Your task to perform on an android device: delete the emails in spam in the gmail app Image 0: 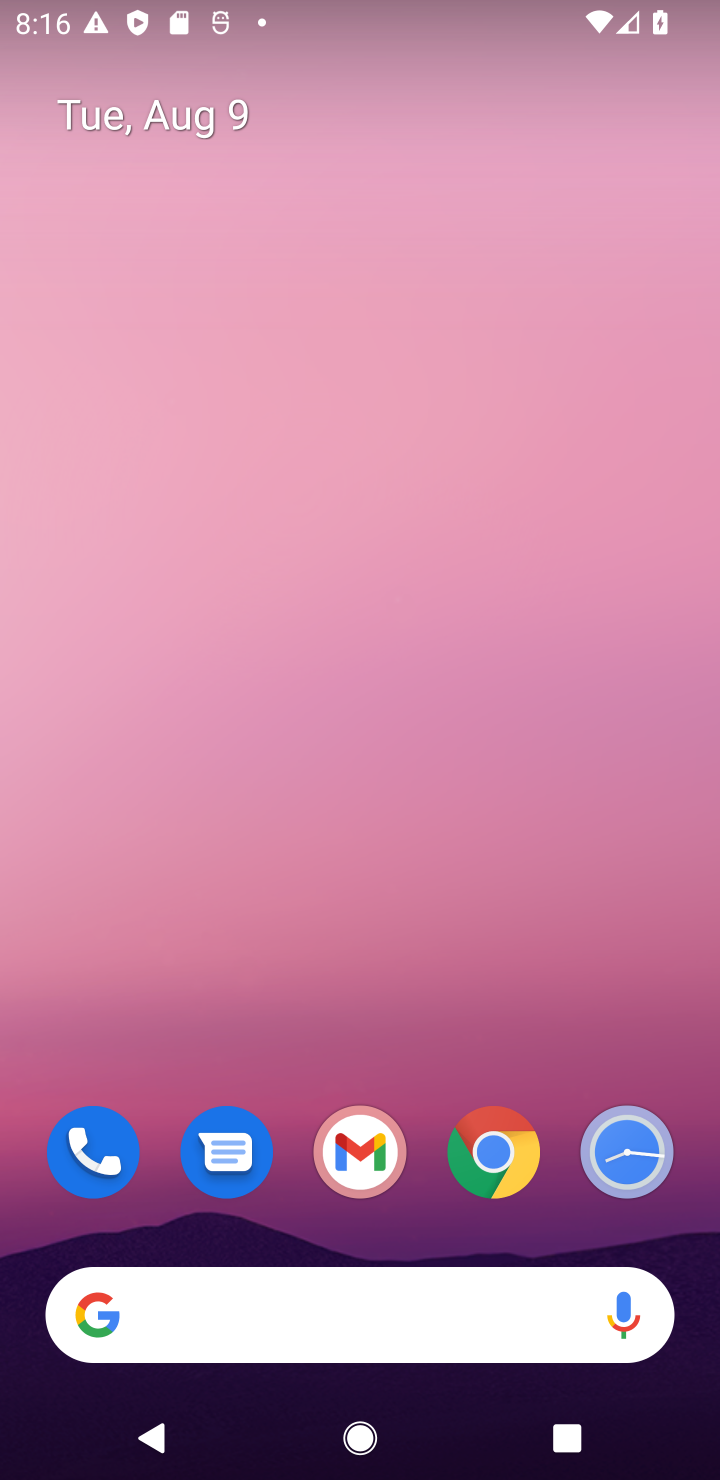
Step 0: click (365, 1124)
Your task to perform on an android device: delete the emails in spam in the gmail app Image 1: 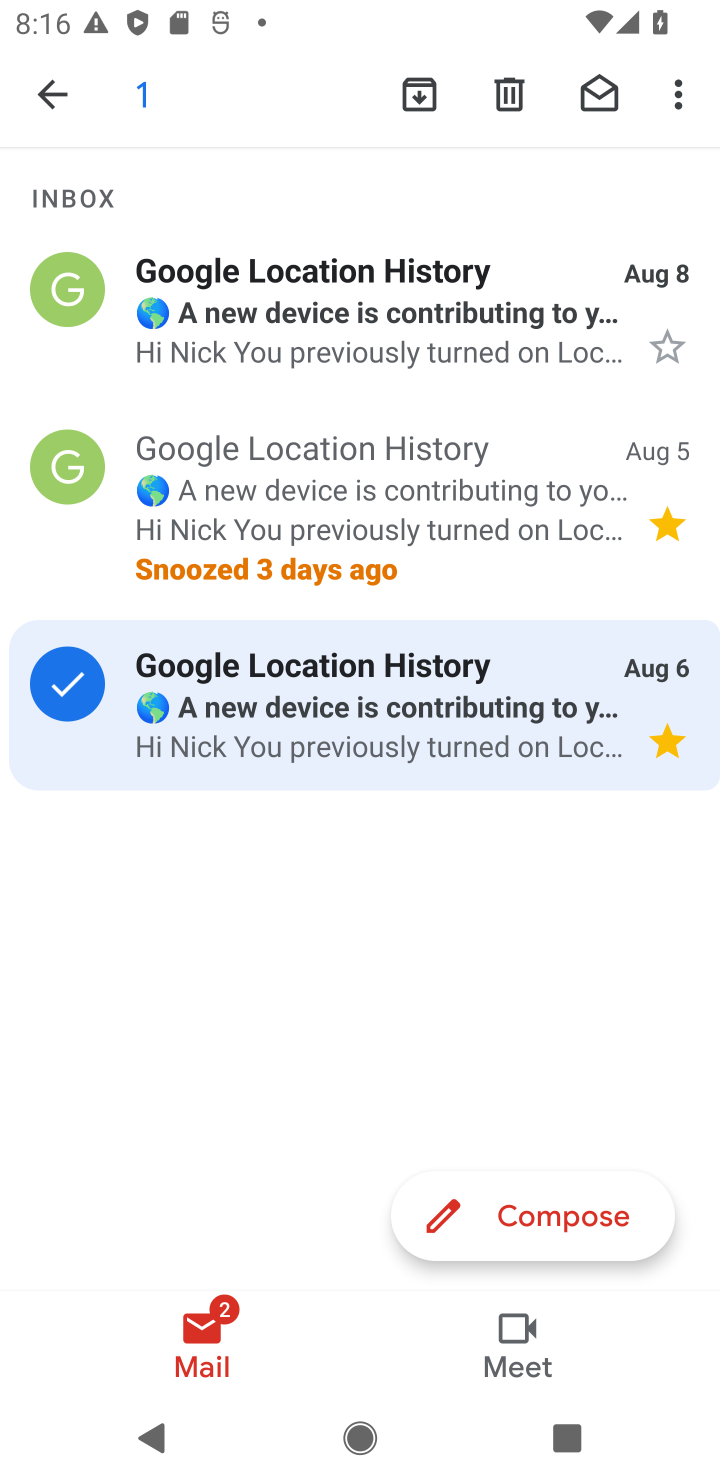
Step 1: click (53, 75)
Your task to perform on an android device: delete the emails in spam in the gmail app Image 2: 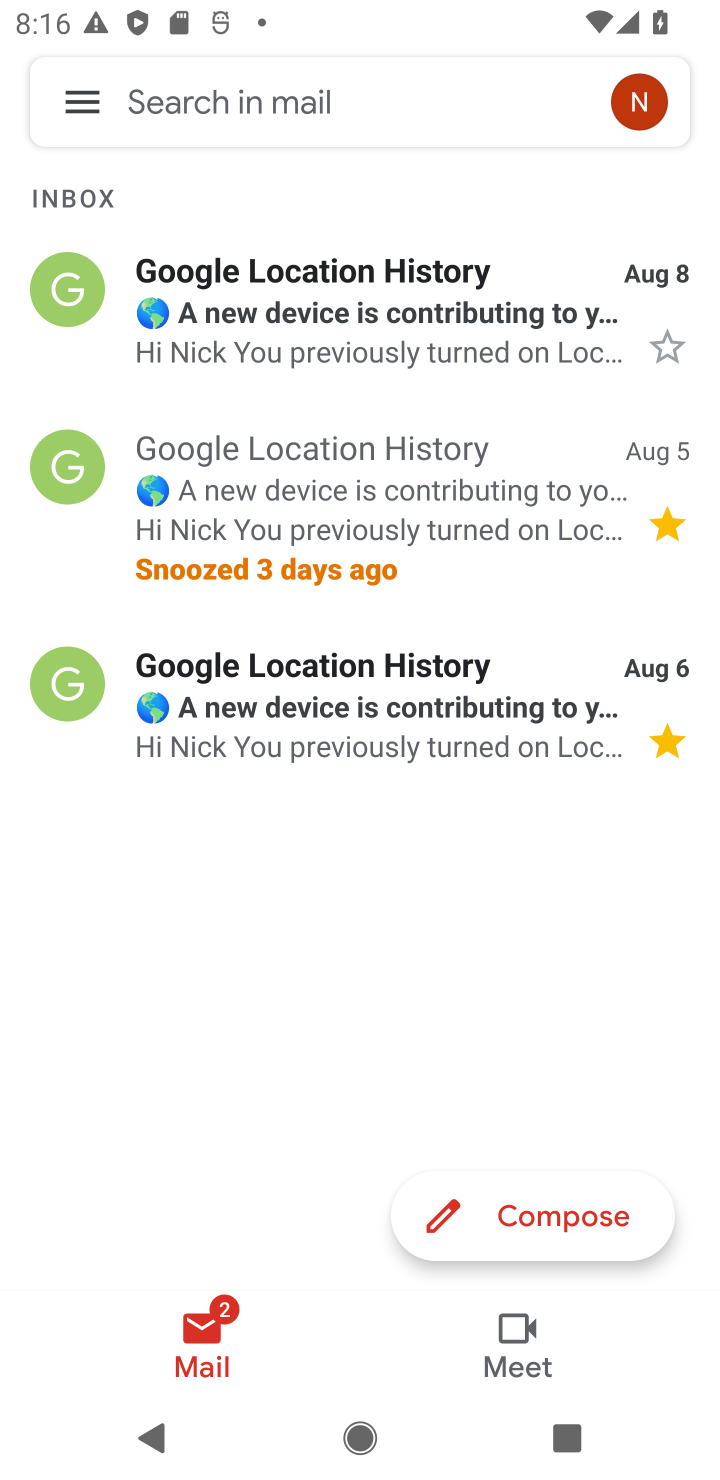
Step 2: click (72, 90)
Your task to perform on an android device: delete the emails in spam in the gmail app Image 3: 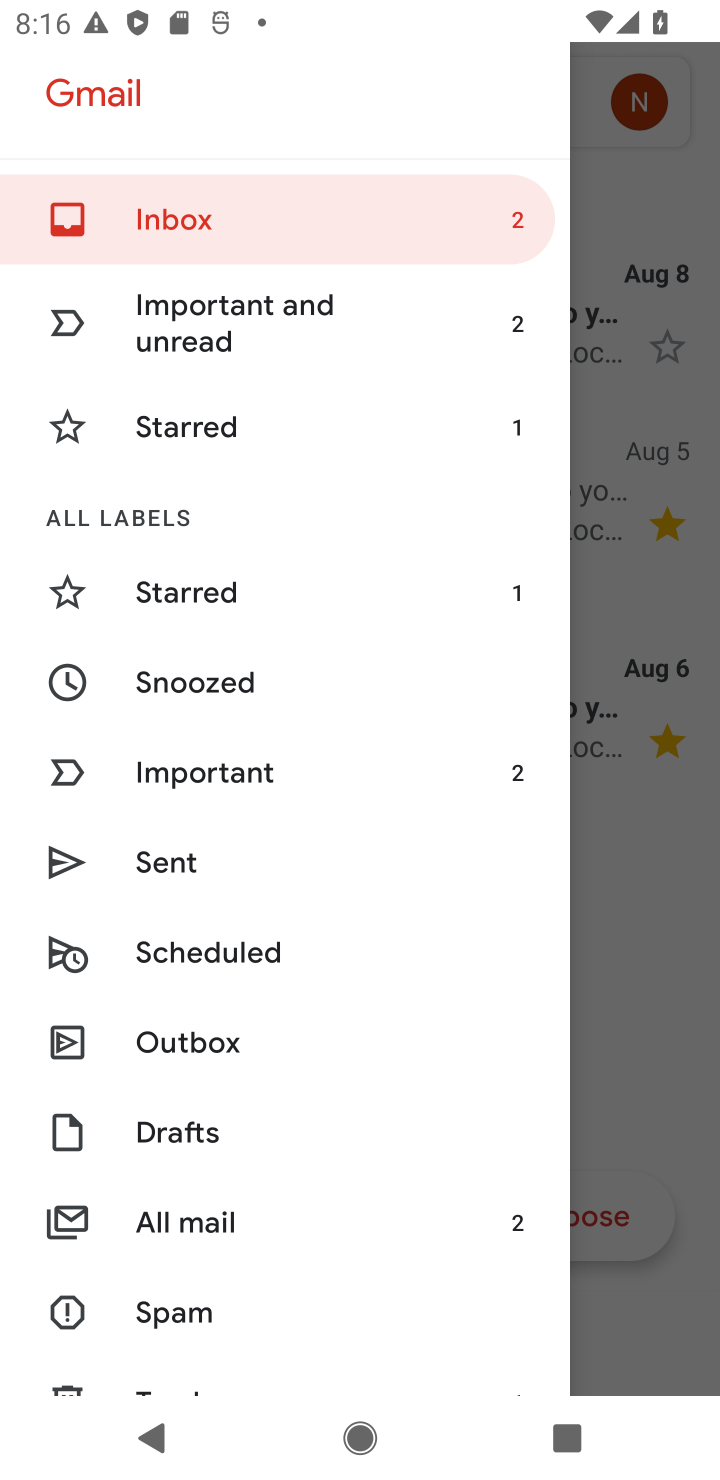
Step 3: click (176, 1303)
Your task to perform on an android device: delete the emails in spam in the gmail app Image 4: 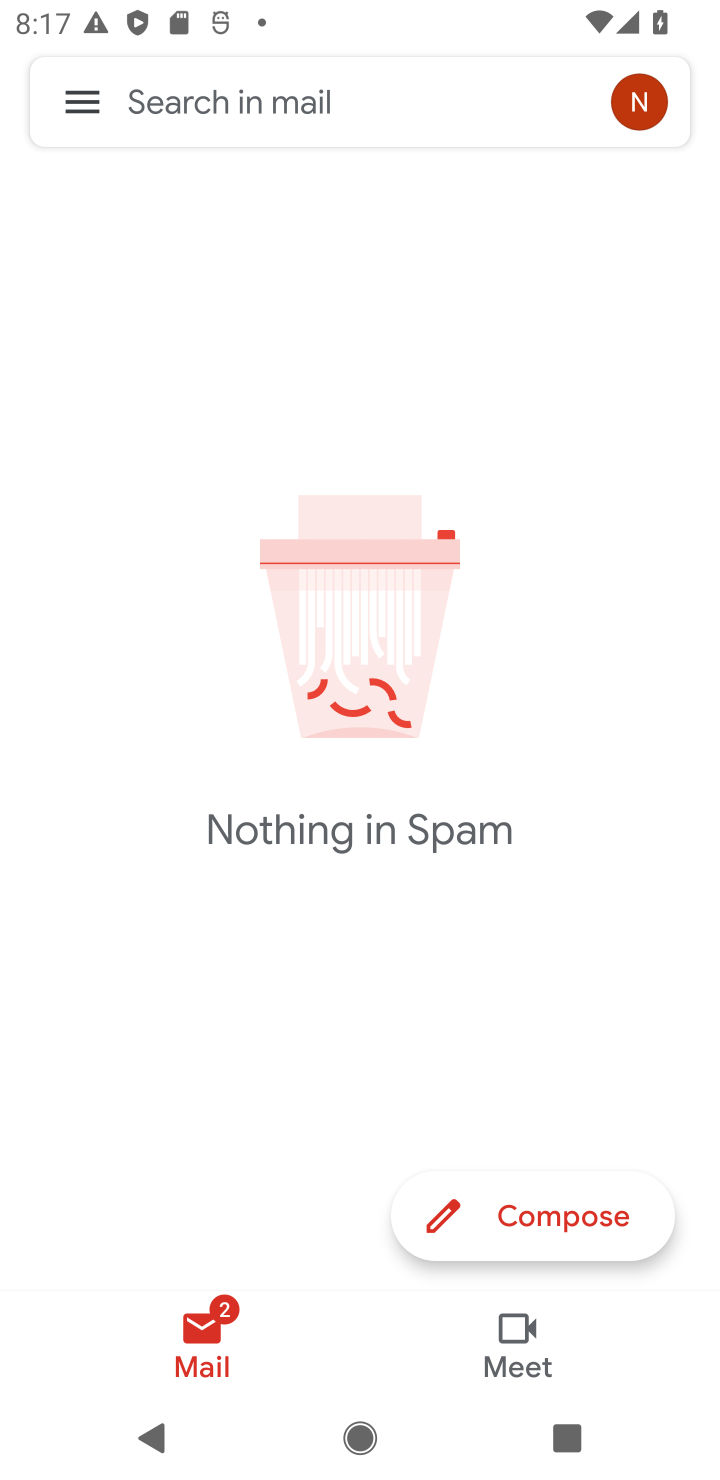
Step 4: task complete